Your task to perform on an android device: turn off location Image 0: 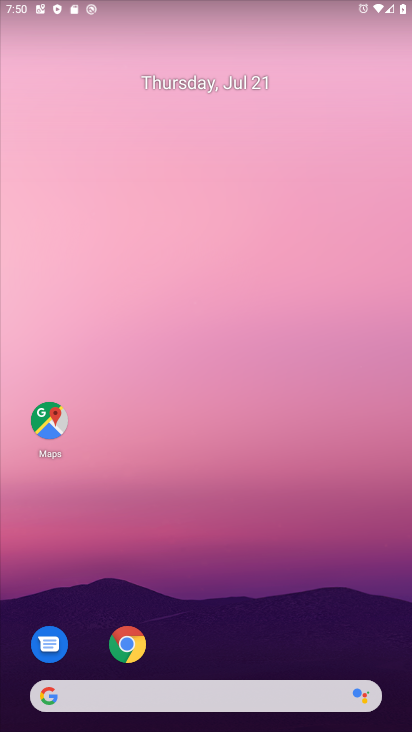
Step 0: drag from (251, 665) to (264, 188)
Your task to perform on an android device: turn off location Image 1: 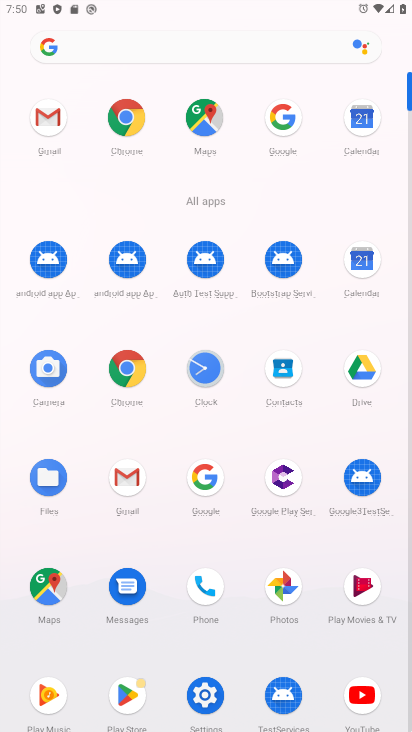
Step 1: click (197, 691)
Your task to perform on an android device: turn off location Image 2: 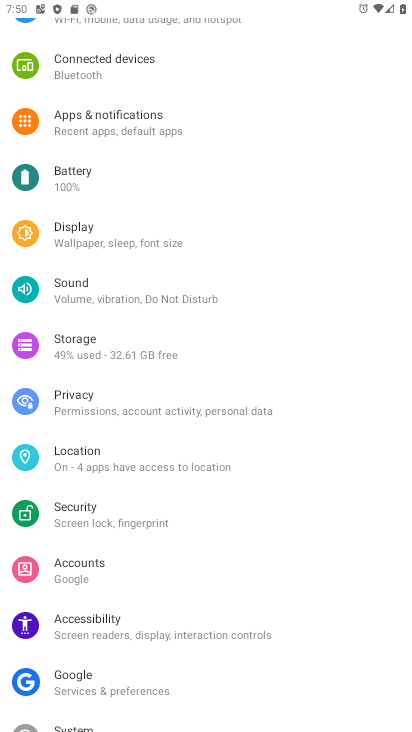
Step 2: click (117, 442)
Your task to perform on an android device: turn off location Image 3: 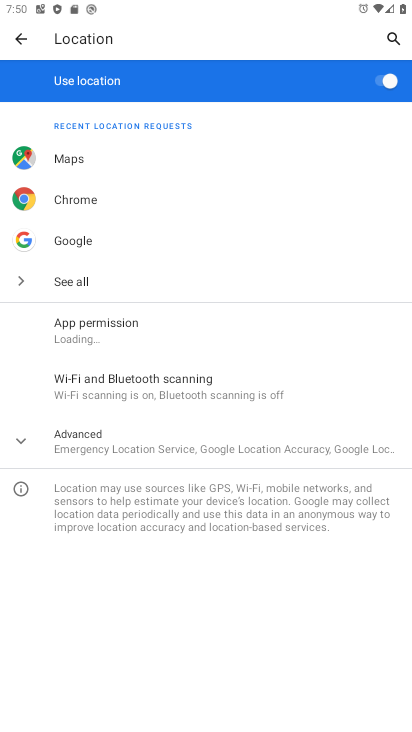
Step 3: click (383, 68)
Your task to perform on an android device: turn off location Image 4: 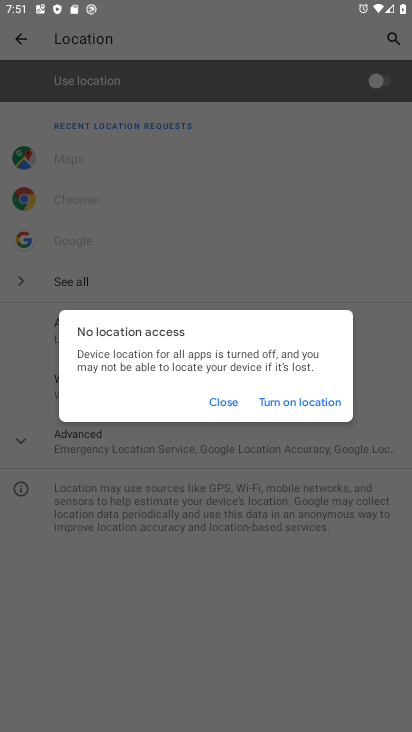
Step 4: click (205, 396)
Your task to perform on an android device: turn off location Image 5: 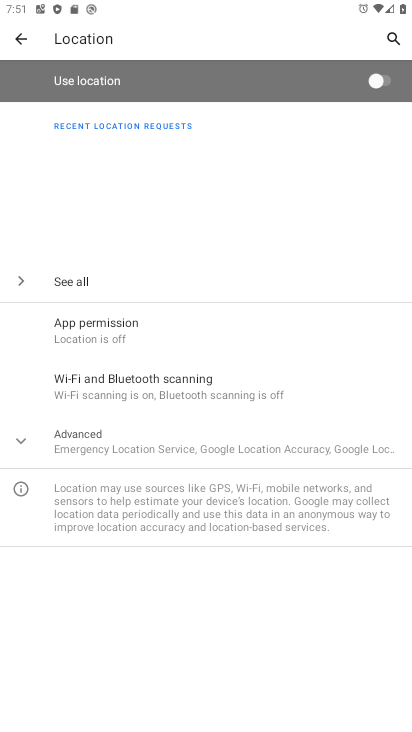
Step 5: task complete